Your task to perform on an android device: Open Youtube and go to "Your channel" Image 0: 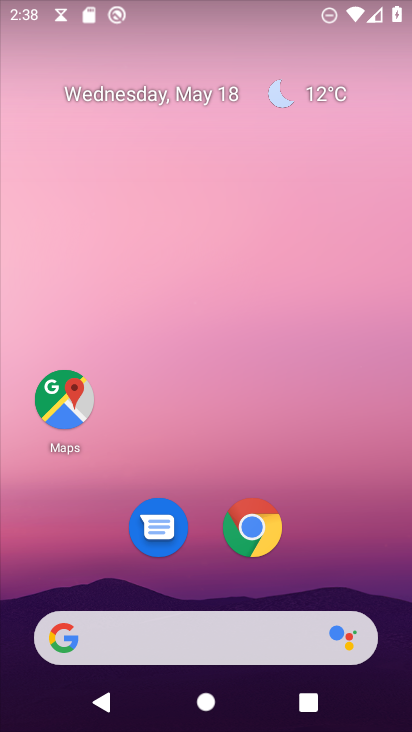
Step 0: drag from (337, 560) to (200, 72)
Your task to perform on an android device: Open Youtube and go to "Your channel" Image 1: 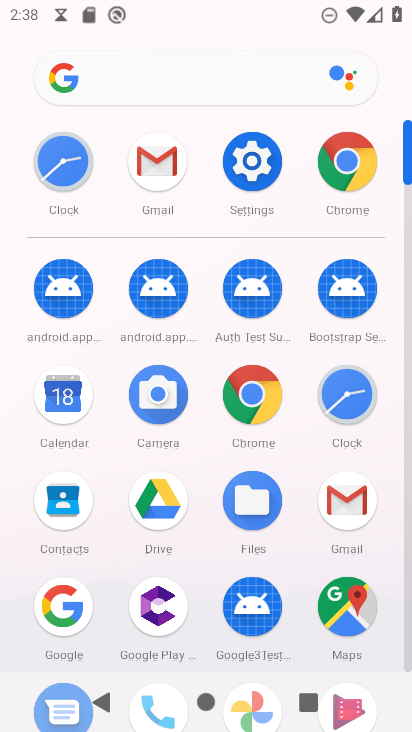
Step 1: drag from (205, 620) to (201, 144)
Your task to perform on an android device: Open Youtube and go to "Your channel" Image 2: 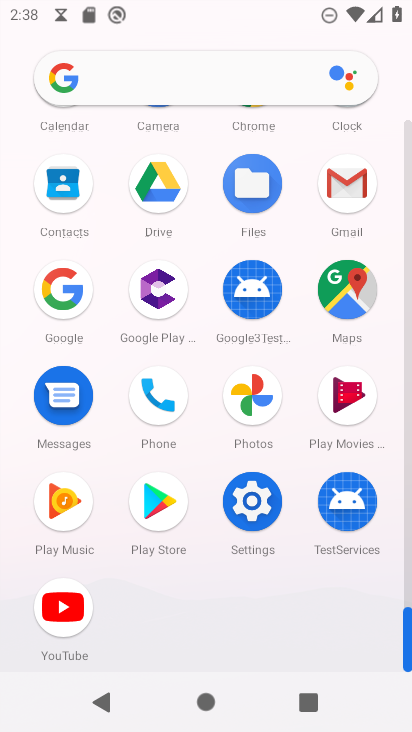
Step 2: click (63, 606)
Your task to perform on an android device: Open Youtube and go to "Your channel" Image 3: 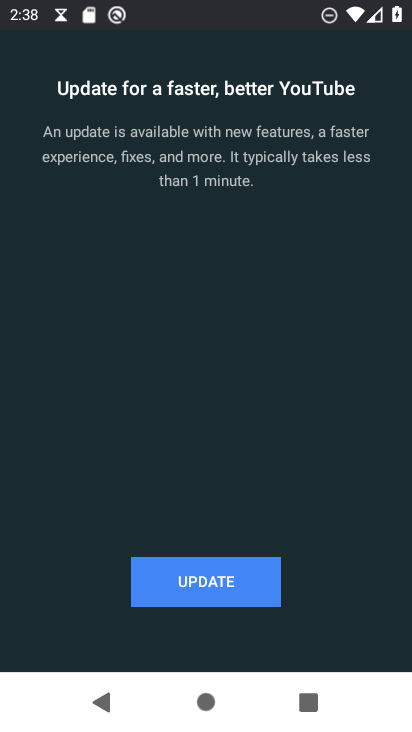
Step 3: click (226, 584)
Your task to perform on an android device: Open Youtube and go to "Your channel" Image 4: 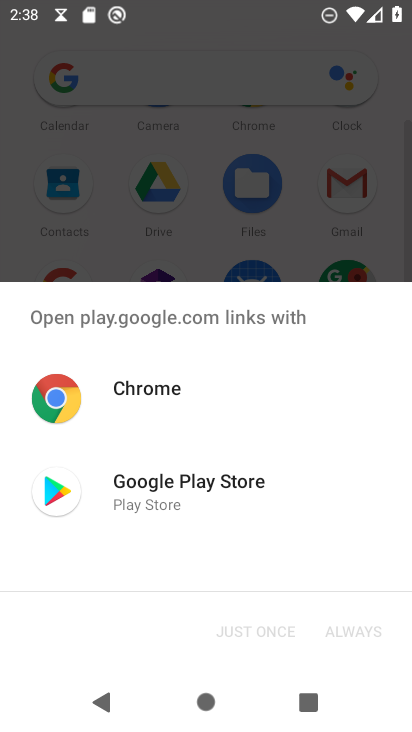
Step 4: click (171, 465)
Your task to perform on an android device: Open Youtube and go to "Your channel" Image 5: 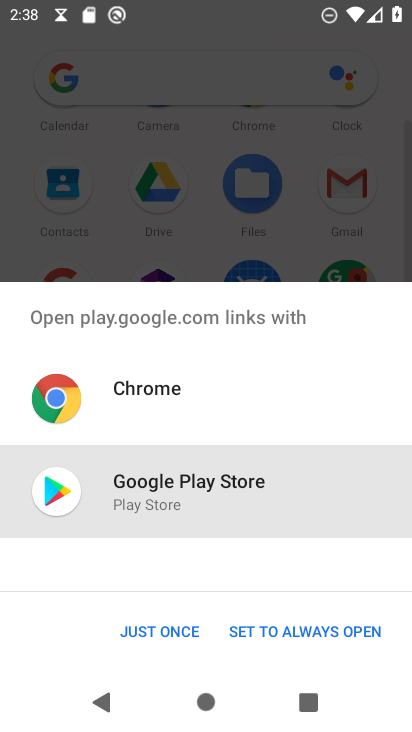
Step 5: click (162, 628)
Your task to perform on an android device: Open Youtube and go to "Your channel" Image 6: 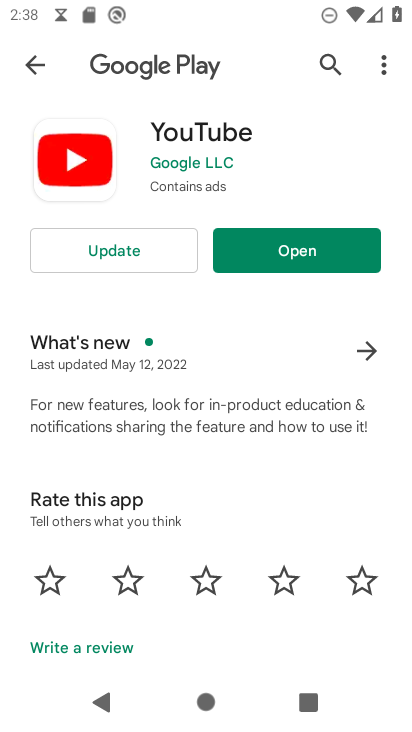
Step 6: click (123, 247)
Your task to perform on an android device: Open Youtube and go to "Your channel" Image 7: 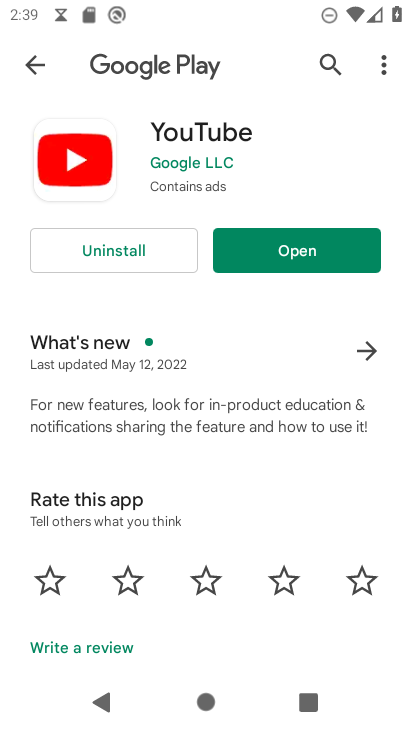
Step 7: click (285, 249)
Your task to perform on an android device: Open Youtube and go to "Your channel" Image 8: 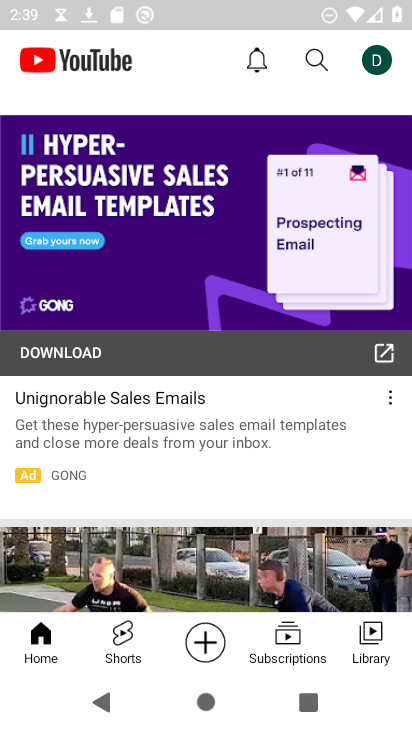
Step 8: click (373, 63)
Your task to perform on an android device: Open Youtube and go to "Your channel" Image 9: 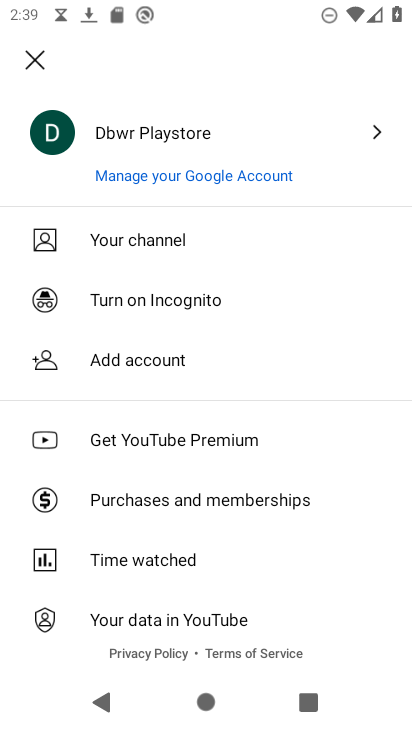
Step 9: click (105, 233)
Your task to perform on an android device: Open Youtube and go to "Your channel" Image 10: 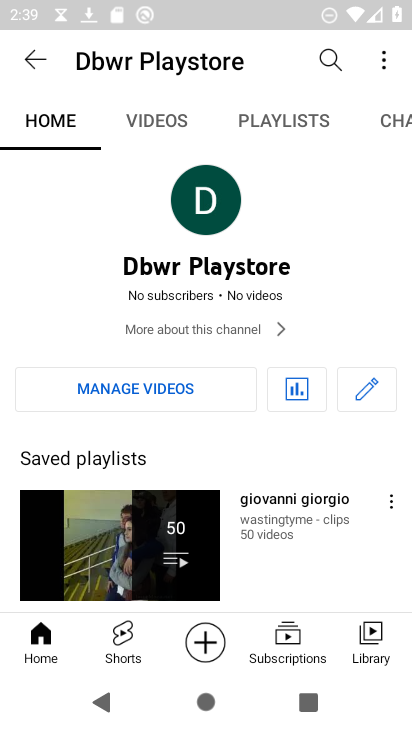
Step 10: task complete